Your task to perform on an android device: turn pop-ups off in chrome Image 0: 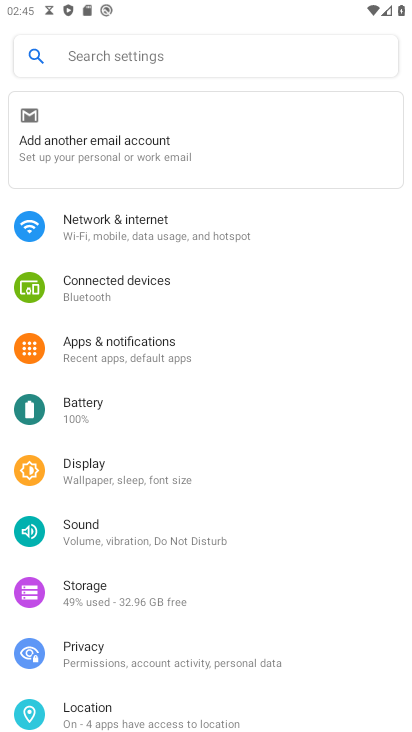
Step 0: press home button
Your task to perform on an android device: turn pop-ups off in chrome Image 1: 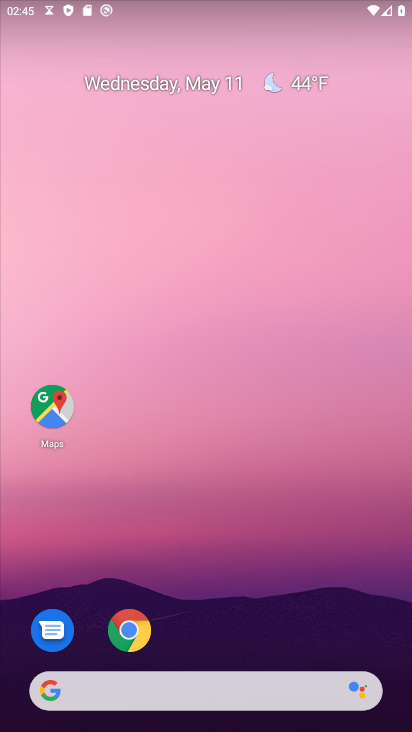
Step 1: click (129, 630)
Your task to perform on an android device: turn pop-ups off in chrome Image 2: 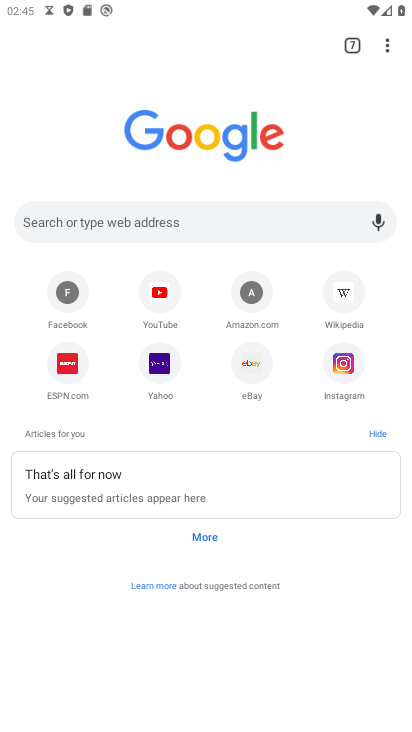
Step 2: click (387, 48)
Your task to perform on an android device: turn pop-ups off in chrome Image 3: 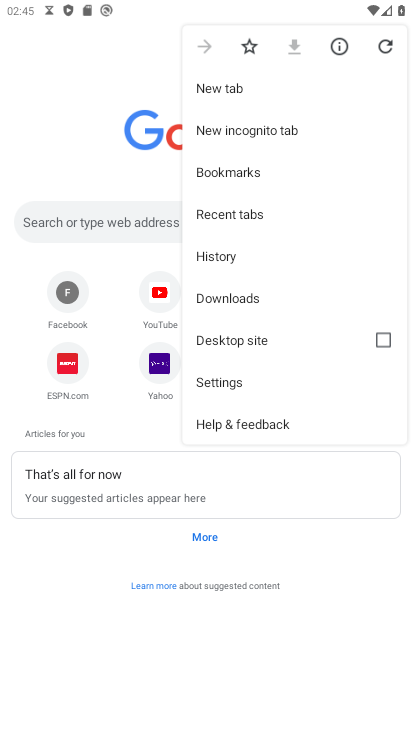
Step 3: click (216, 375)
Your task to perform on an android device: turn pop-ups off in chrome Image 4: 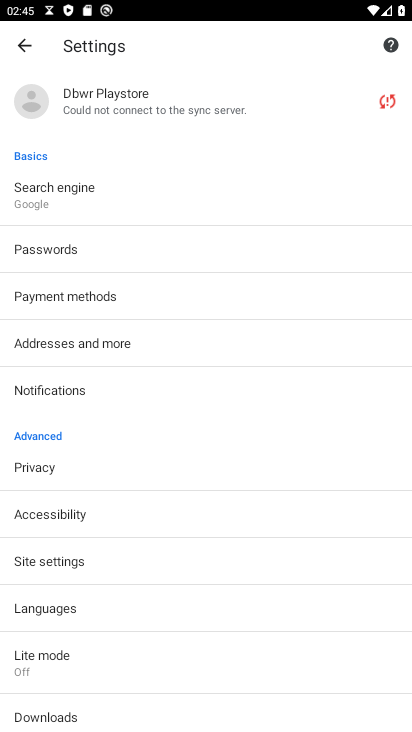
Step 4: drag from (139, 670) to (127, 306)
Your task to perform on an android device: turn pop-ups off in chrome Image 5: 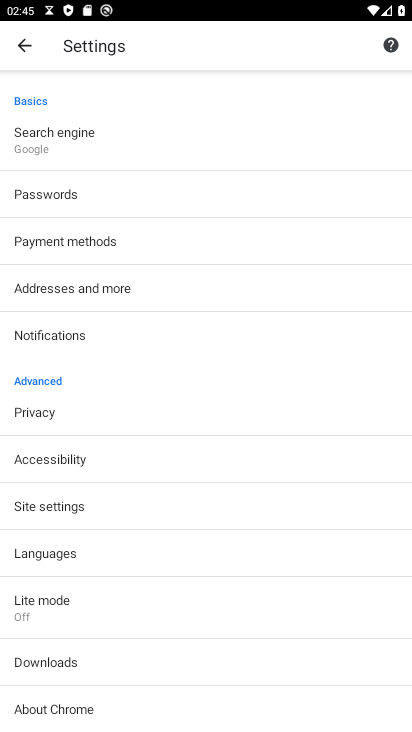
Step 5: click (61, 504)
Your task to perform on an android device: turn pop-ups off in chrome Image 6: 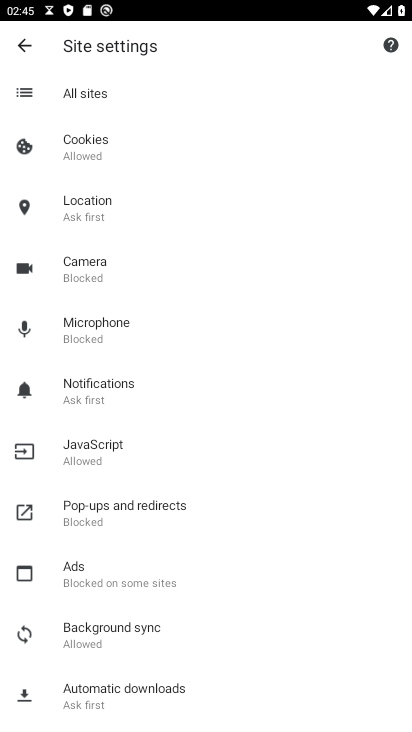
Step 6: click (118, 507)
Your task to perform on an android device: turn pop-ups off in chrome Image 7: 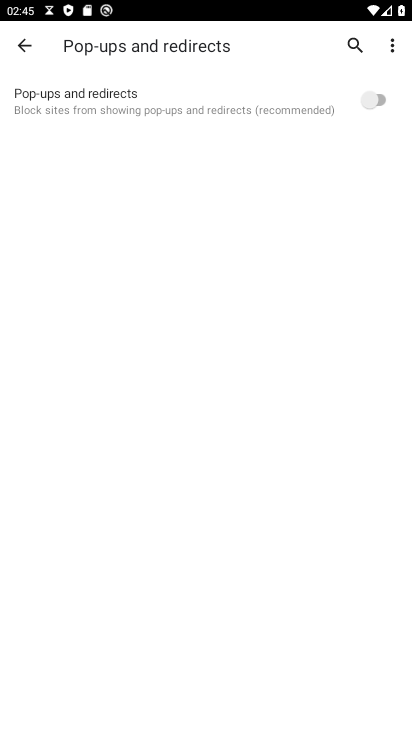
Step 7: task complete